Your task to perform on an android device: Go to Google maps Image 0: 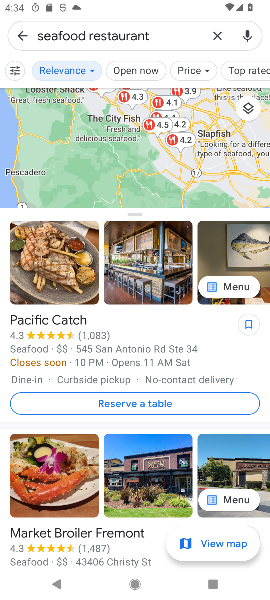
Step 0: click (22, 33)
Your task to perform on an android device: Go to Google maps Image 1: 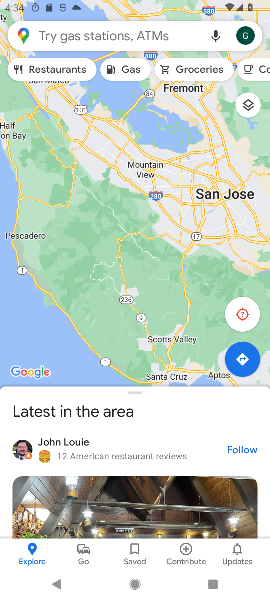
Step 1: task complete